Your task to perform on an android device: Do I have any events this weekend? Image 0: 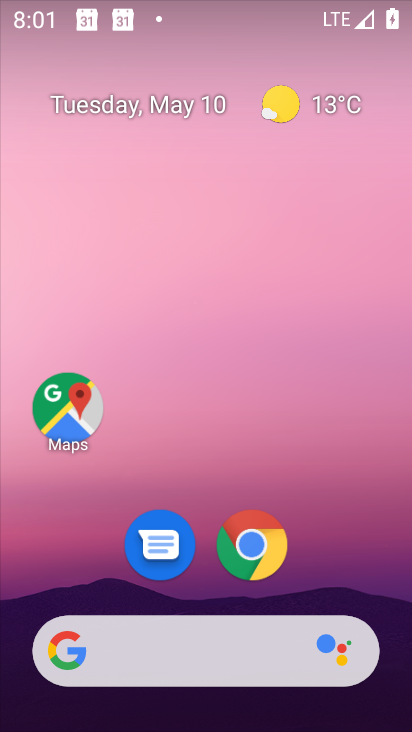
Step 0: drag from (205, 589) to (252, 82)
Your task to perform on an android device: Do I have any events this weekend? Image 1: 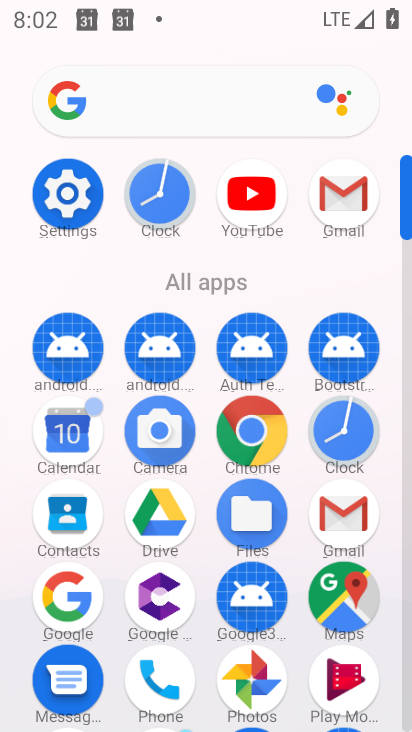
Step 1: click (66, 434)
Your task to perform on an android device: Do I have any events this weekend? Image 2: 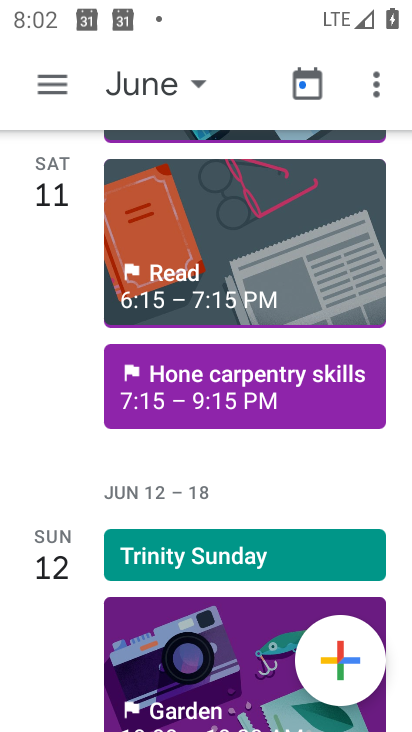
Step 2: click (55, 84)
Your task to perform on an android device: Do I have any events this weekend? Image 3: 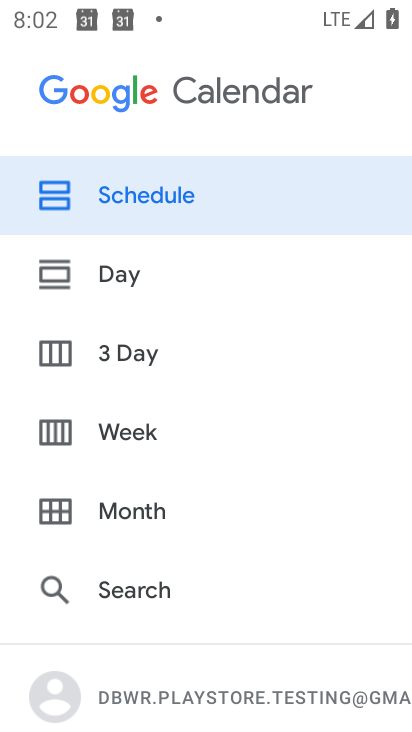
Step 3: click (82, 432)
Your task to perform on an android device: Do I have any events this weekend? Image 4: 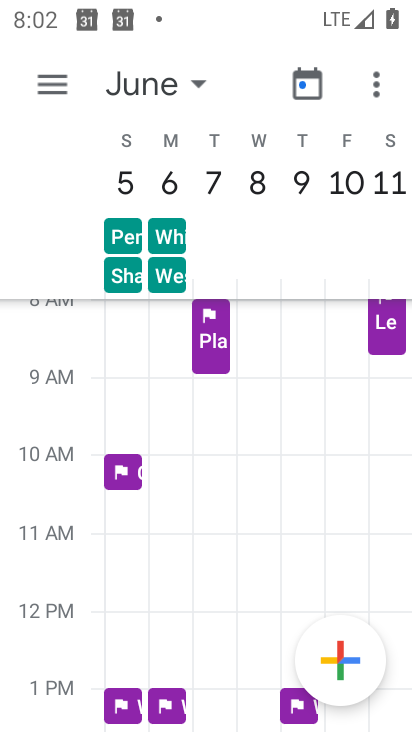
Step 4: drag from (127, 191) to (410, 175)
Your task to perform on an android device: Do I have any events this weekend? Image 5: 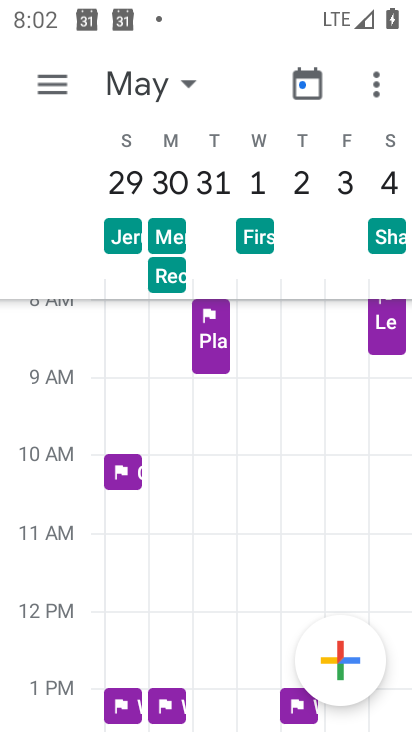
Step 5: drag from (116, 184) to (410, 190)
Your task to perform on an android device: Do I have any events this weekend? Image 6: 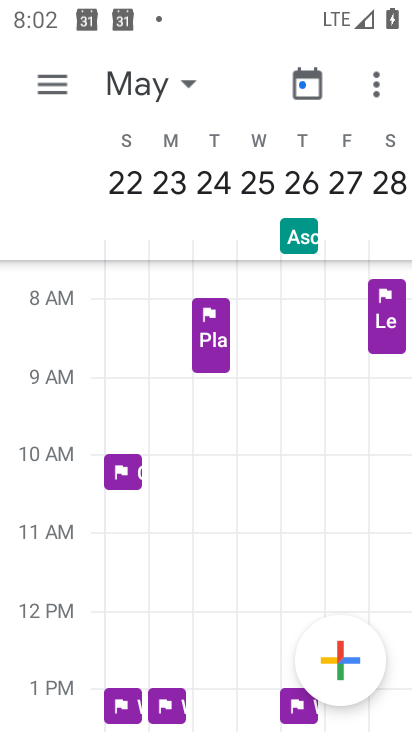
Step 6: drag from (123, 179) to (411, 188)
Your task to perform on an android device: Do I have any events this weekend? Image 7: 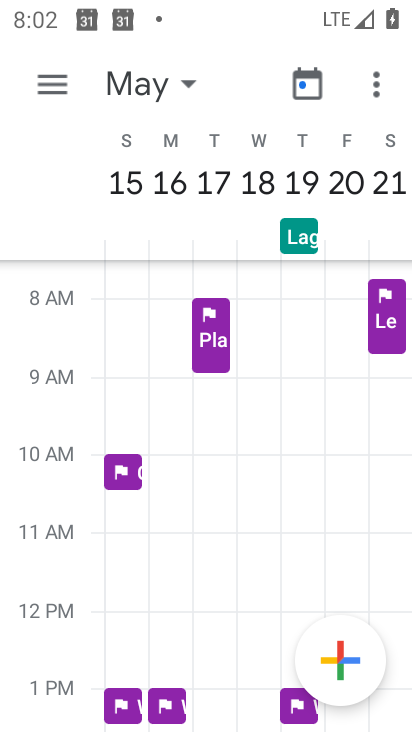
Step 7: drag from (130, 183) to (411, 210)
Your task to perform on an android device: Do I have any events this weekend? Image 8: 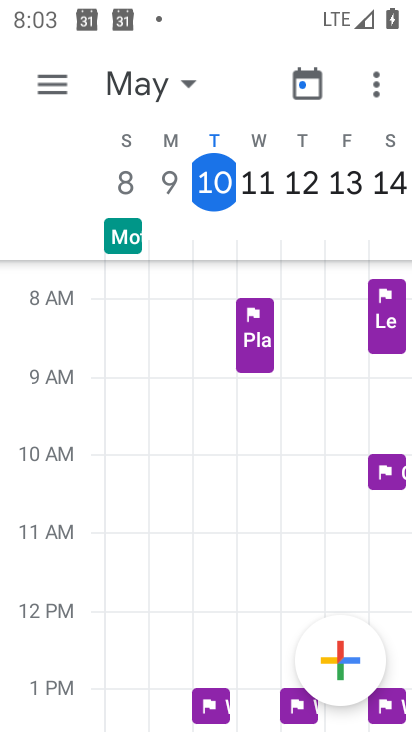
Step 8: click (212, 192)
Your task to perform on an android device: Do I have any events this weekend? Image 9: 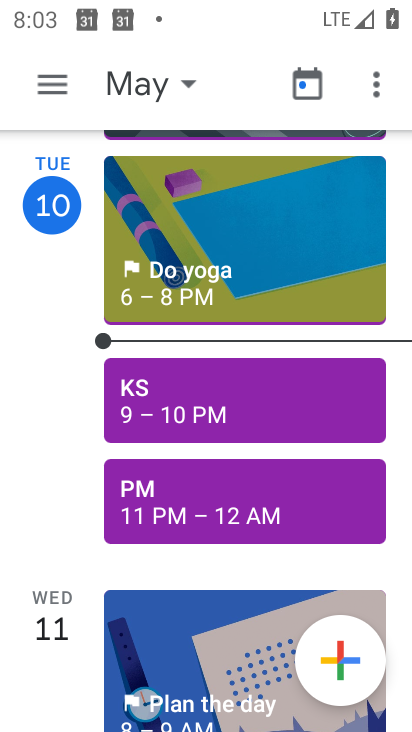
Step 9: drag from (53, 504) to (128, 137)
Your task to perform on an android device: Do I have any events this weekend? Image 10: 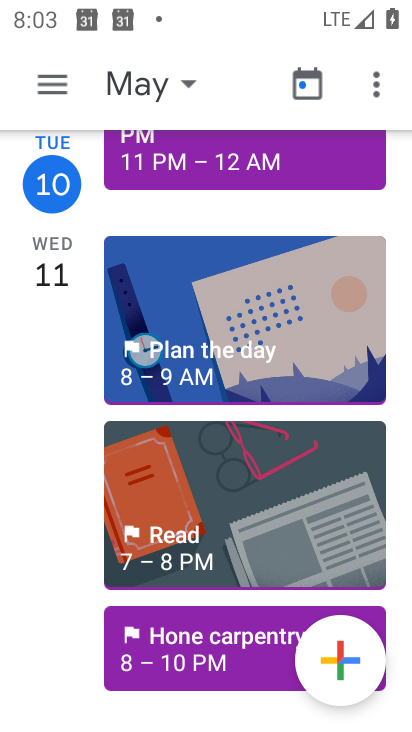
Step 10: drag from (64, 539) to (103, 172)
Your task to perform on an android device: Do I have any events this weekend? Image 11: 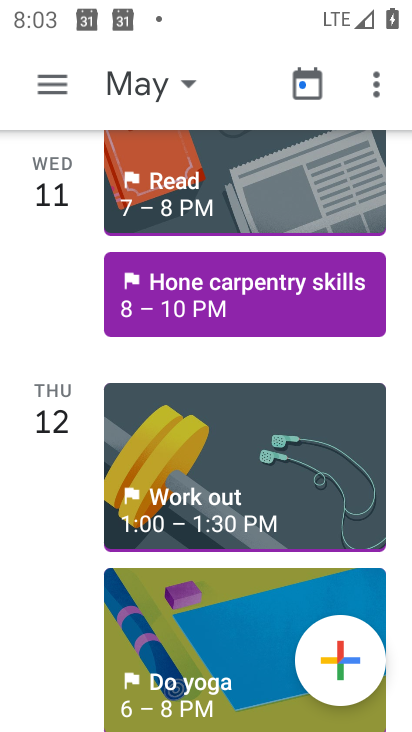
Step 11: drag from (63, 496) to (118, 161)
Your task to perform on an android device: Do I have any events this weekend? Image 12: 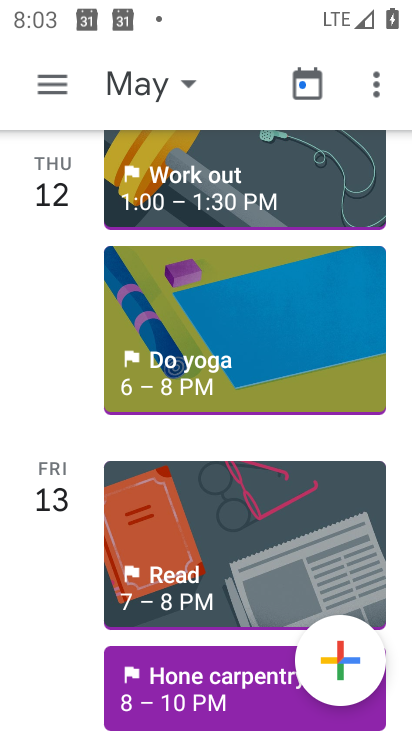
Step 12: drag from (66, 522) to (101, 125)
Your task to perform on an android device: Do I have any events this weekend? Image 13: 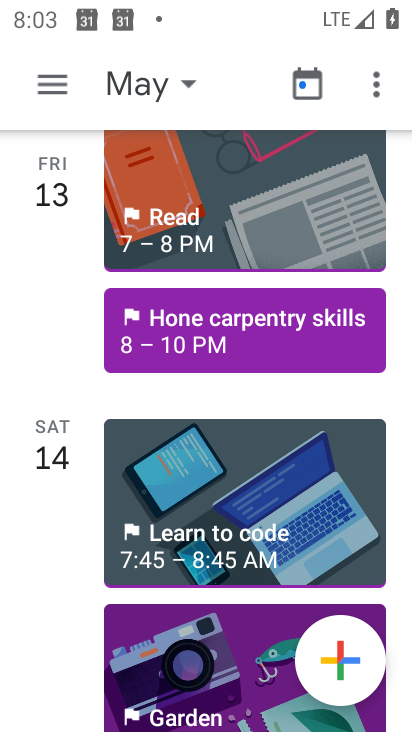
Step 13: drag from (61, 524) to (92, 210)
Your task to perform on an android device: Do I have any events this weekend? Image 14: 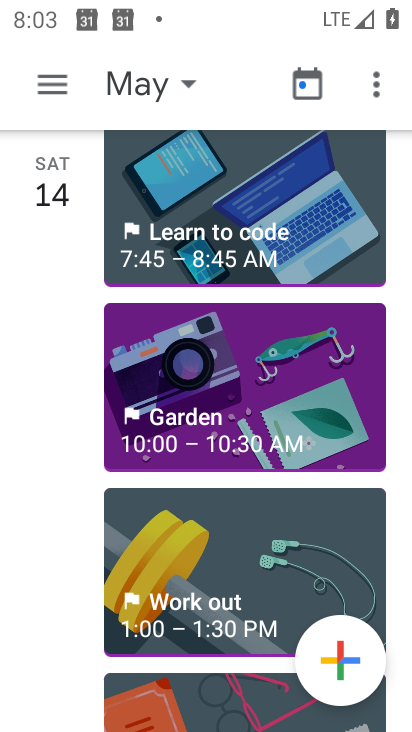
Step 14: drag from (62, 521) to (84, 281)
Your task to perform on an android device: Do I have any events this weekend? Image 15: 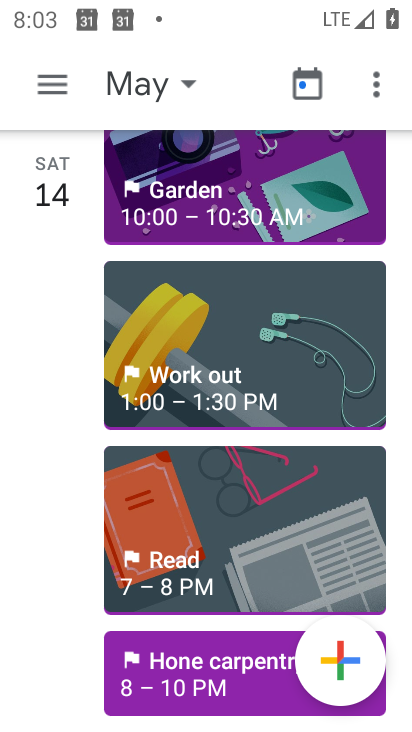
Step 15: click (84, 241)
Your task to perform on an android device: Do I have any events this weekend? Image 16: 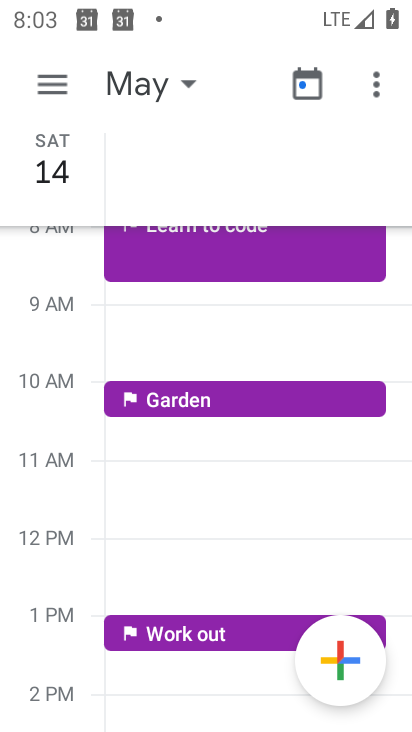
Step 16: task complete